Your task to perform on an android device: Open Reddit.com Image 0: 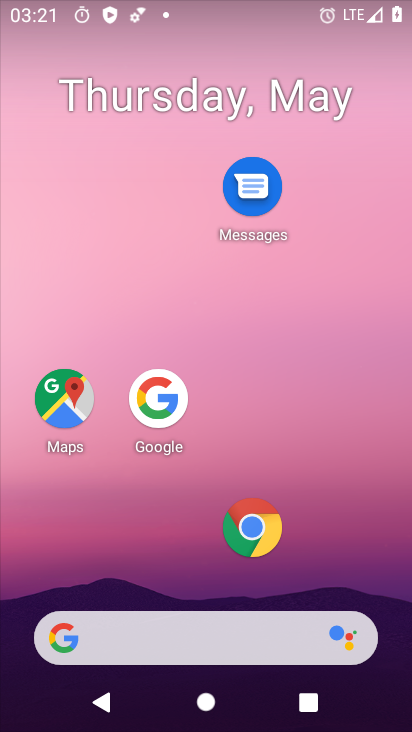
Step 0: drag from (207, 582) to (180, 157)
Your task to perform on an android device: Open Reddit.com Image 1: 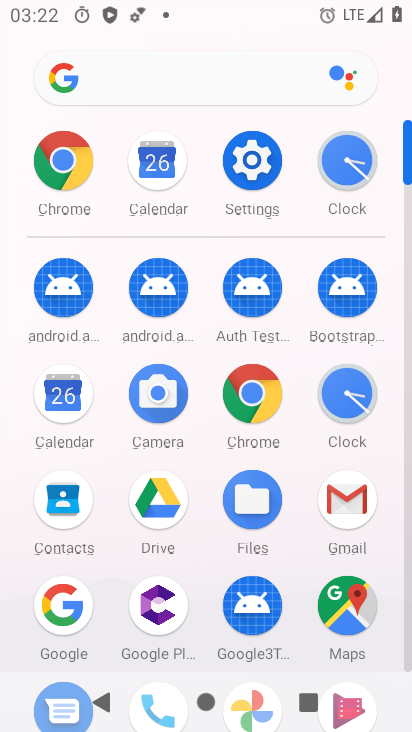
Step 1: click (139, 71)
Your task to perform on an android device: Open Reddit.com Image 2: 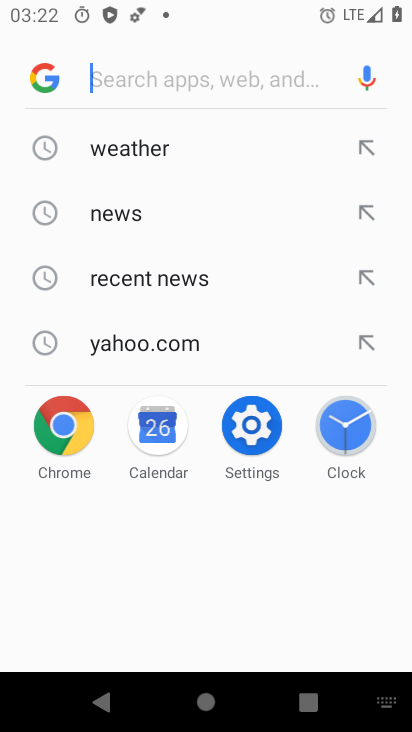
Step 2: type "Reddit.com"
Your task to perform on an android device: Open Reddit.com Image 3: 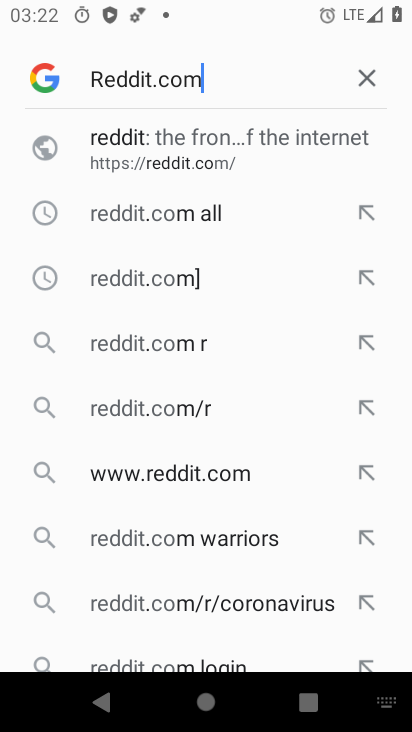
Step 3: type ""
Your task to perform on an android device: Open Reddit.com Image 4: 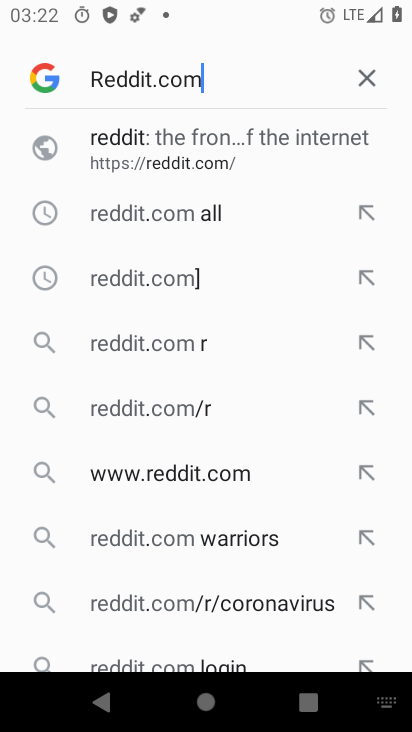
Step 4: click (134, 145)
Your task to perform on an android device: Open Reddit.com Image 5: 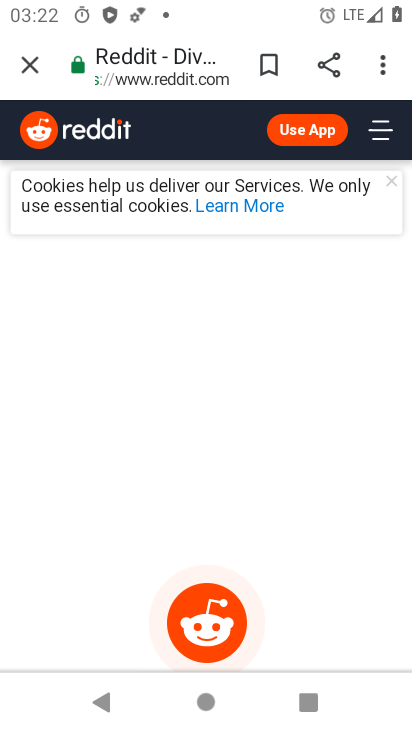
Step 5: task complete